Your task to perform on an android device: Go to ESPN.com Image 0: 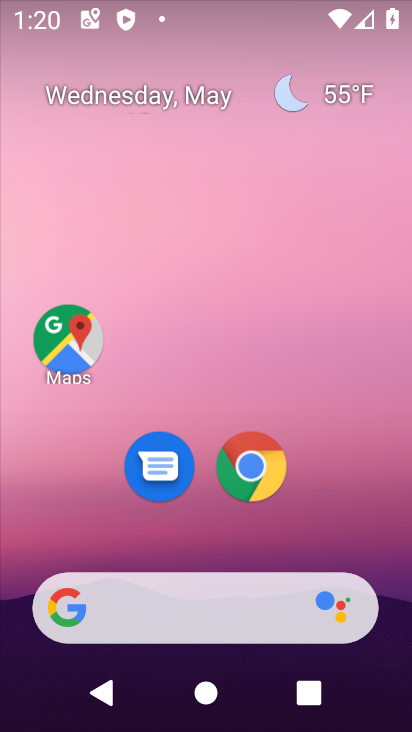
Step 0: click (242, 472)
Your task to perform on an android device: Go to ESPN.com Image 1: 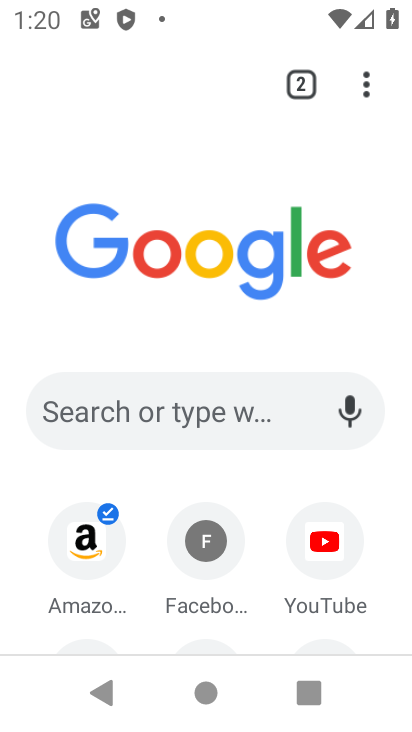
Step 1: click (150, 410)
Your task to perform on an android device: Go to ESPN.com Image 2: 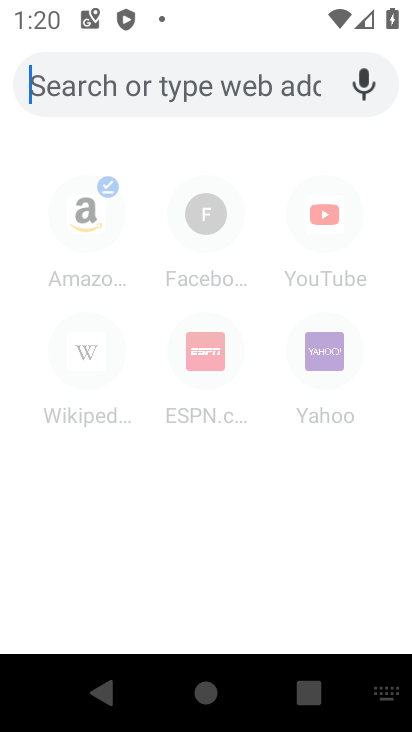
Step 2: type "ESPN.com"
Your task to perform on an android device: Go to ESPN.com Image 3: 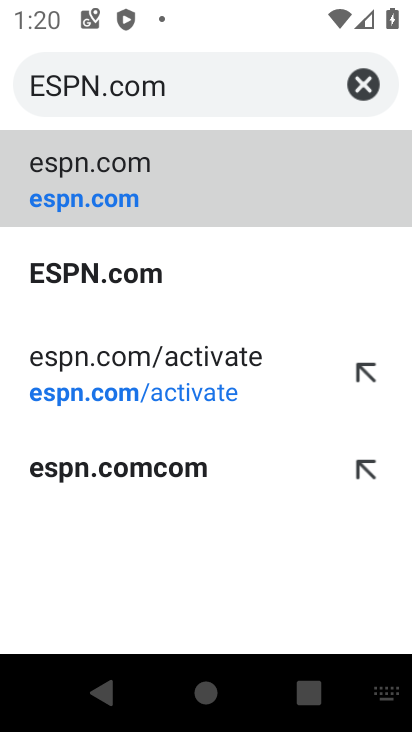
Step 3: click (70, 186)
Your task to perform on an android device: Go to ESPN.com Image 4: 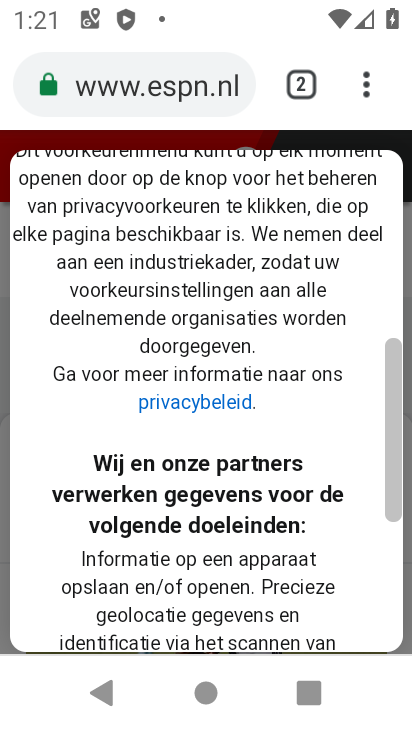
Step 4: task complete